Your task to perform on an android device: open a new tab in the chrome app Image 0: 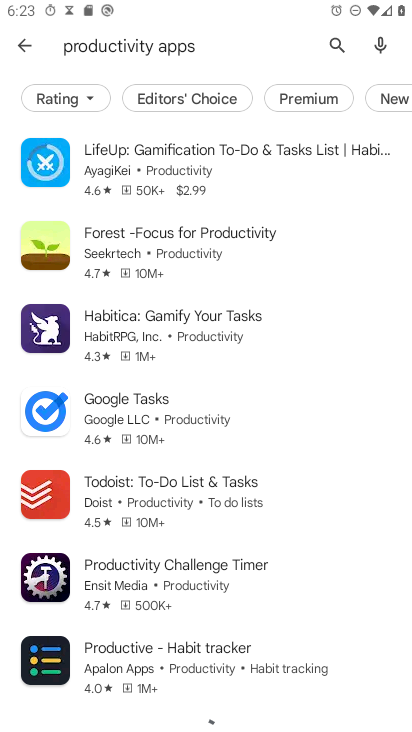
Step 0: press home button
Your task to perform on an android device: open a new tab in the chrome app Image 1: 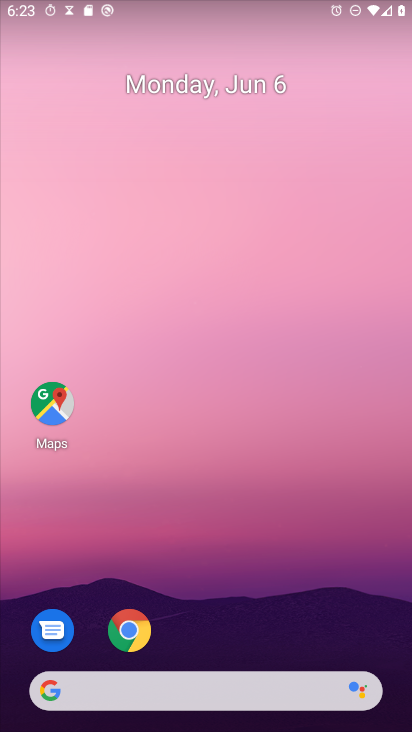
Step 1: click (127, 615)
Your task to perform on an android device: open a new tab in the chrome app Image 2: 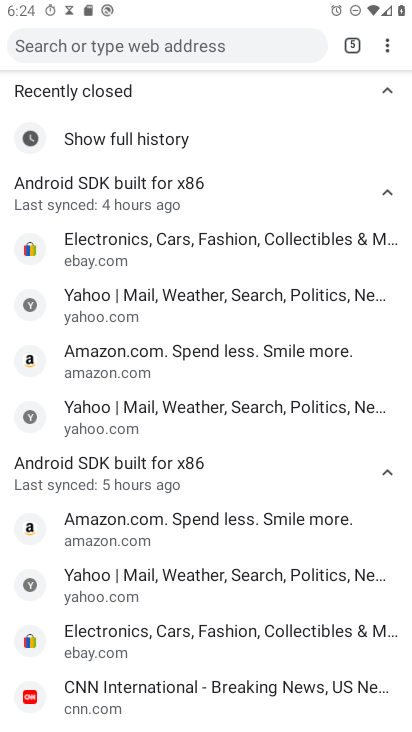
Step 2: click (389, 49)
Your task to perform on an android device: open a new tab in the chrome app Image 3: 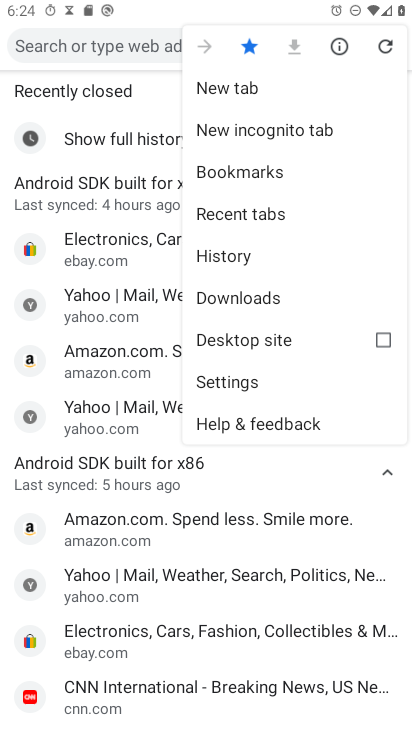
Step 3: click (278, 89)
Your task to perform on an android device: open a new tab in the chrome app Image 4: 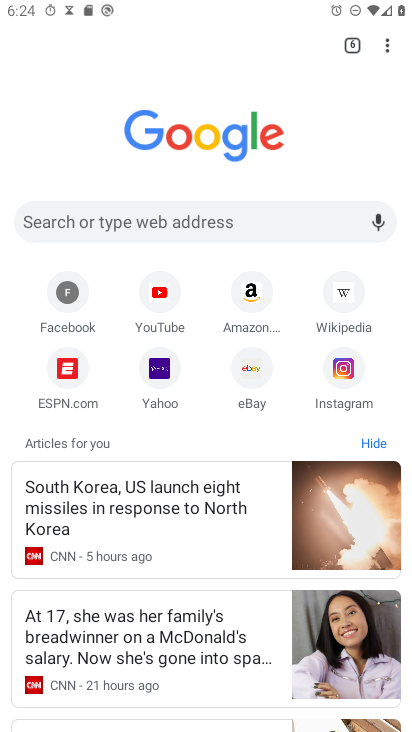
Step 4: task complete